Your task to perform on an android device: stop showing notifications on the lock screen Image 0: 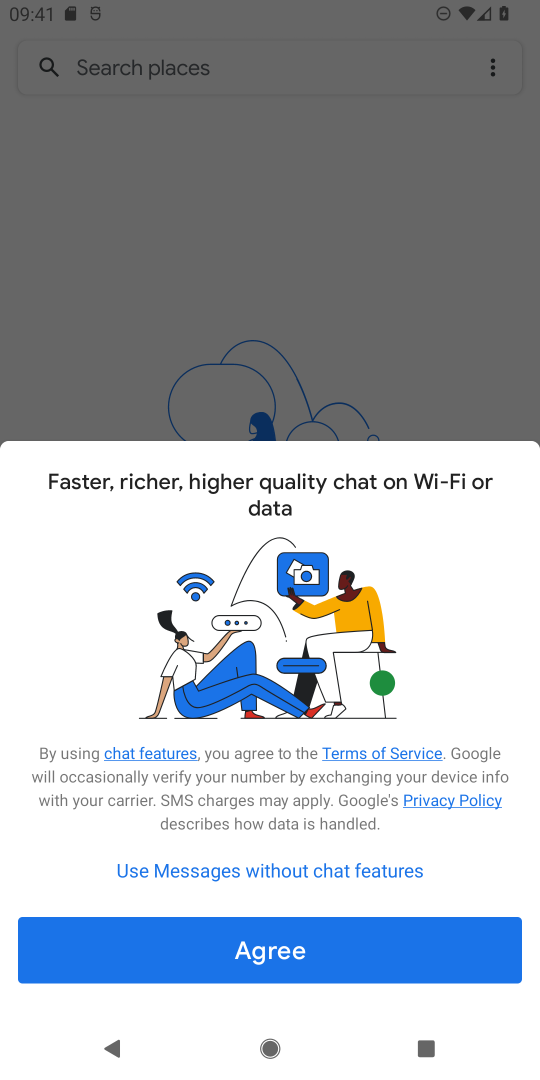
Step 0: press home button
Your task to perform on an android device: stop showing notifications on the lock screen Image 1: 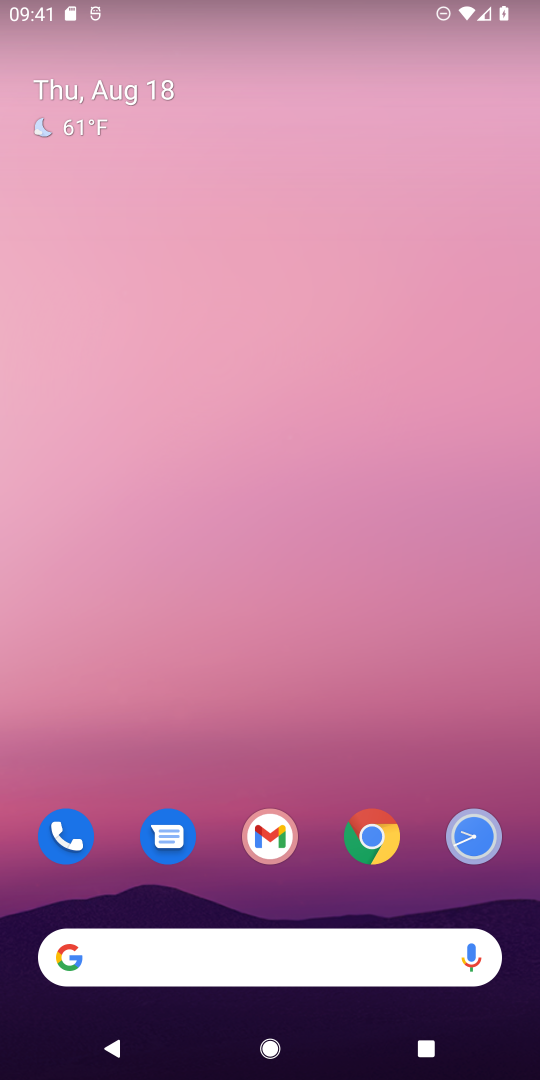
Step 1: drag from (312, 756) to (394, 121)
Your task to perform on an android device: stop showing notifications on the lock screen Image 2: 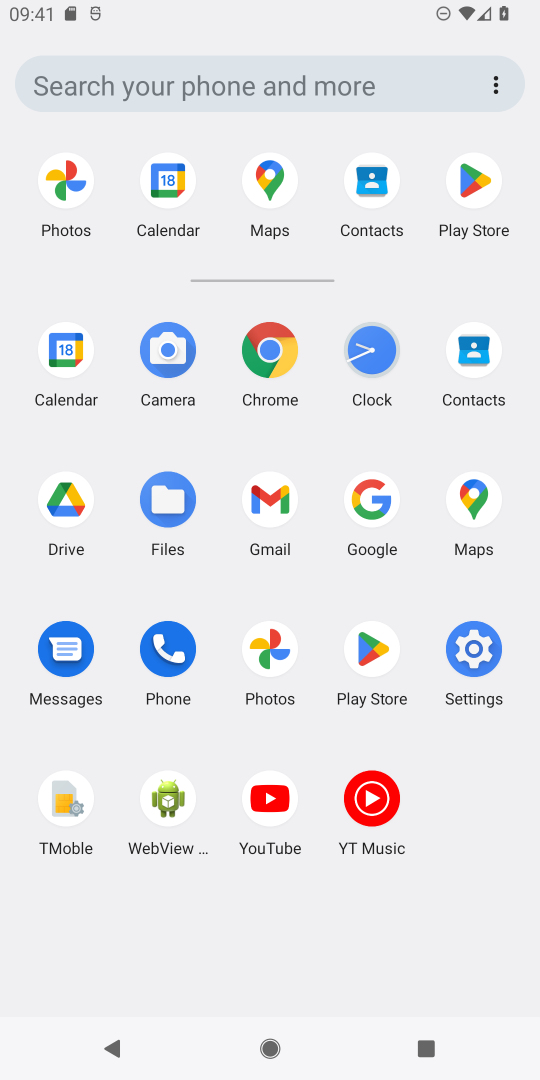
Step 2: click (466, 664)
Your task to perform on an android device: stop showing notifications on the lock screen Image 3: 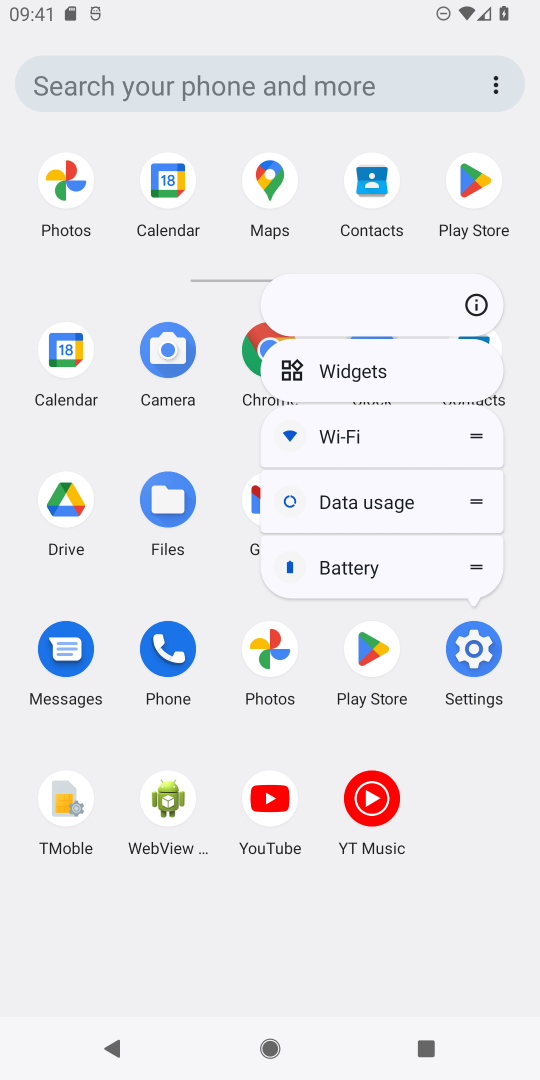
Step 3: click (469, 653)
Your task to perform on an android device: stop showing notifications on the lock screen Image 4: 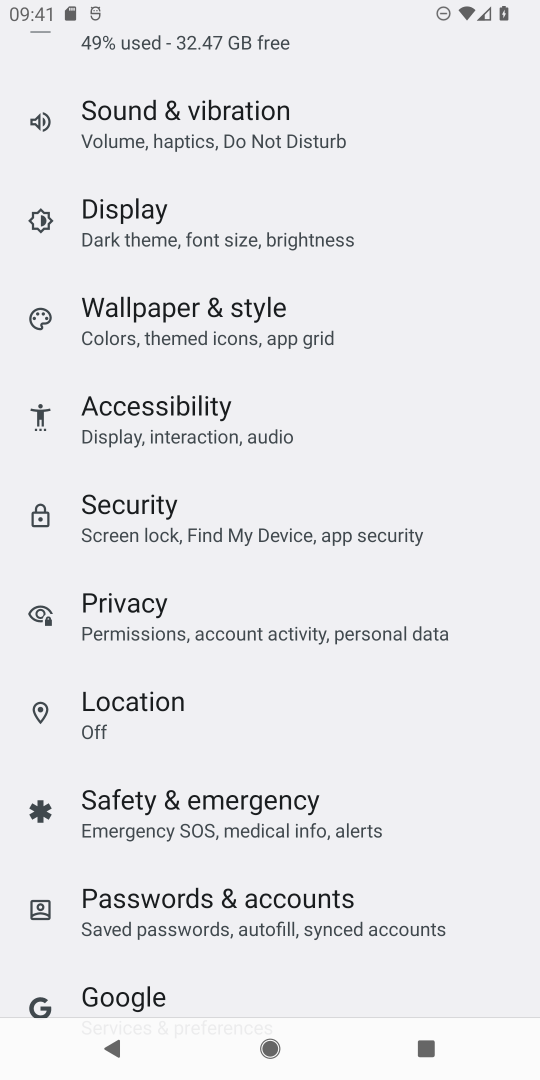
Step 4: drag from (375, 305) to (290, 889)
Your task to perform on an android device: stop showing notifications on the lock screen Image 5: 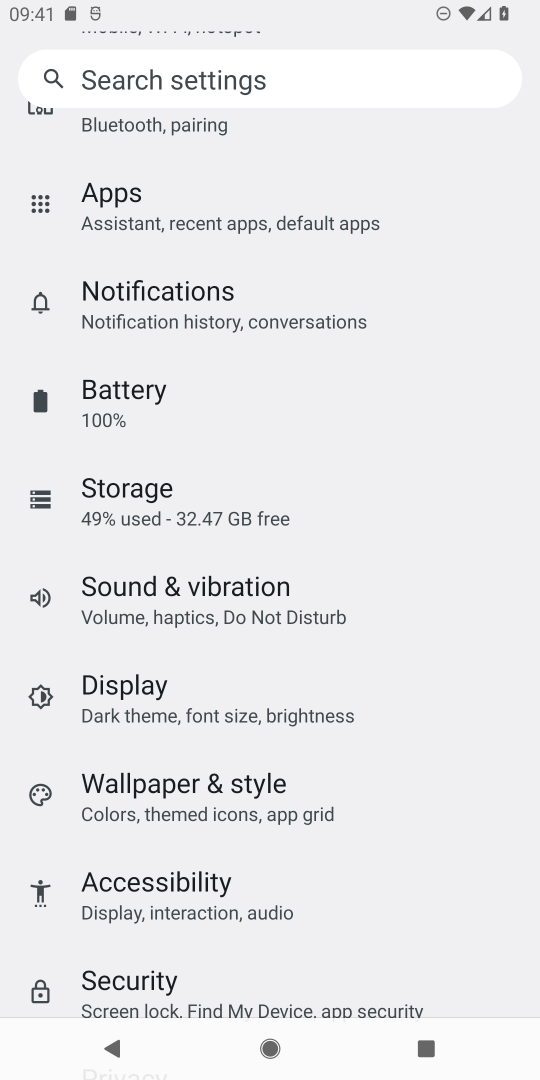
Step 5: click (209, 295)
Your task to perform on an android device: stop showing notifications on the lock screen Image 6: 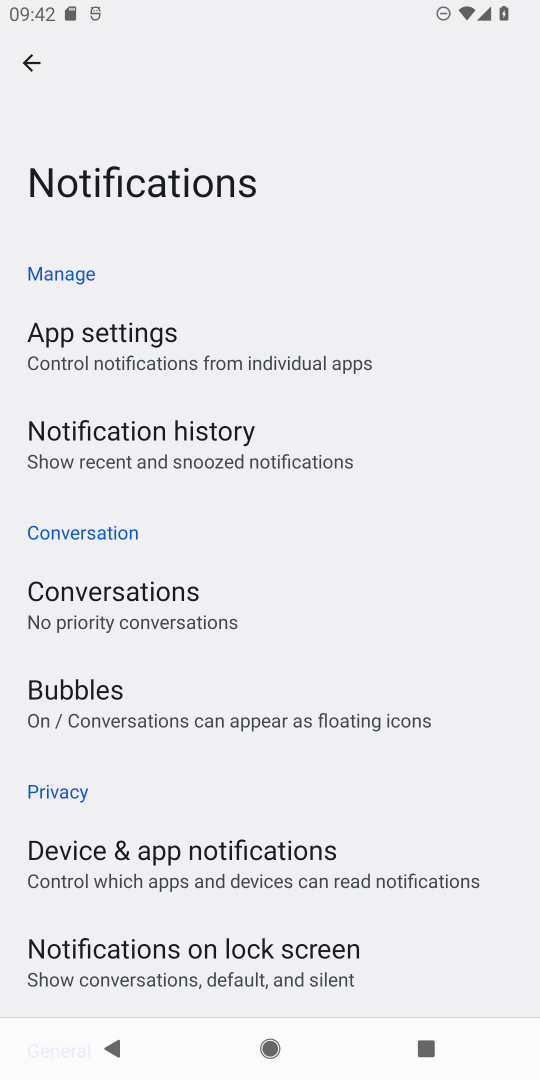
Step 6: click (250, 948)
Your task to perform on an android device: stop showing notifications on the lock screen Image 7: 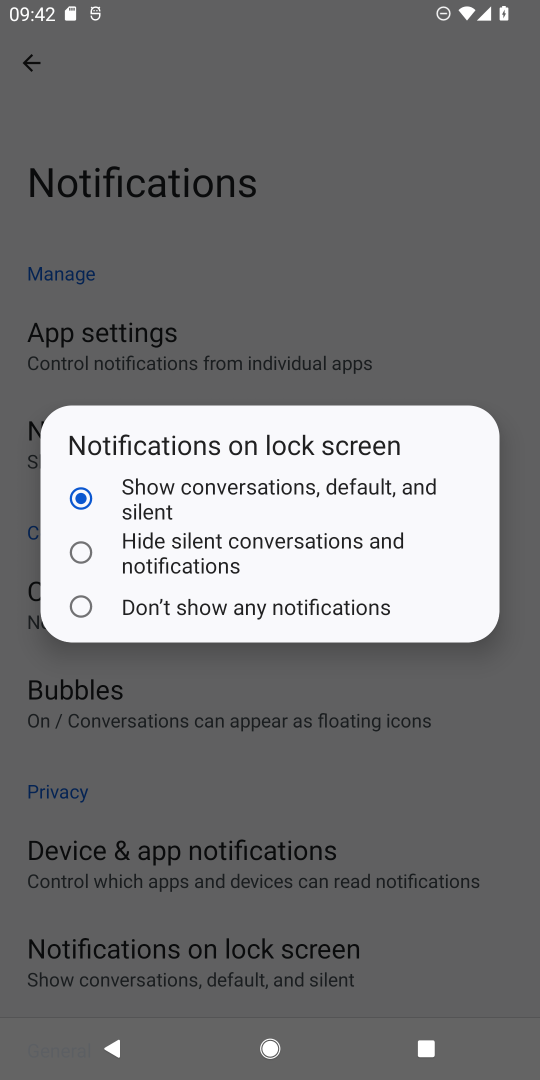
Step 7: click (202, 598)
Your task to perform on an android device: stop showing notifications on the lock screen Image 8: 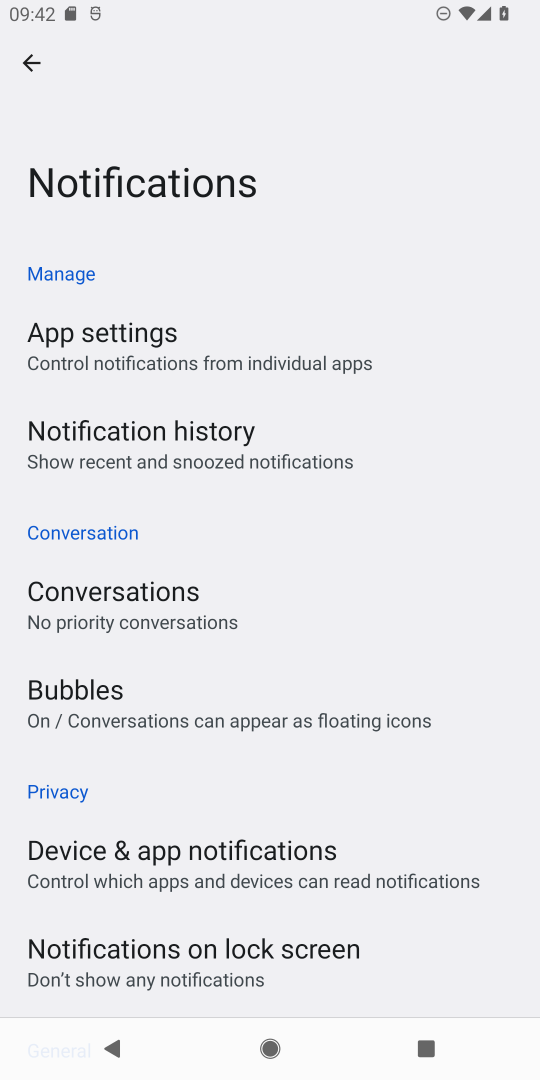
Step 8: task complete